Your task to perform on an android device: Go to CNN.com Image 0: 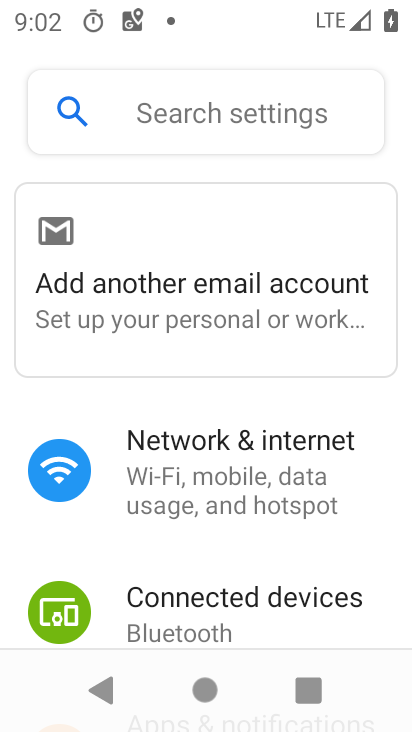
Step 0: press home button
Your task to perform on an android device: Go to CNN.com Image 1: 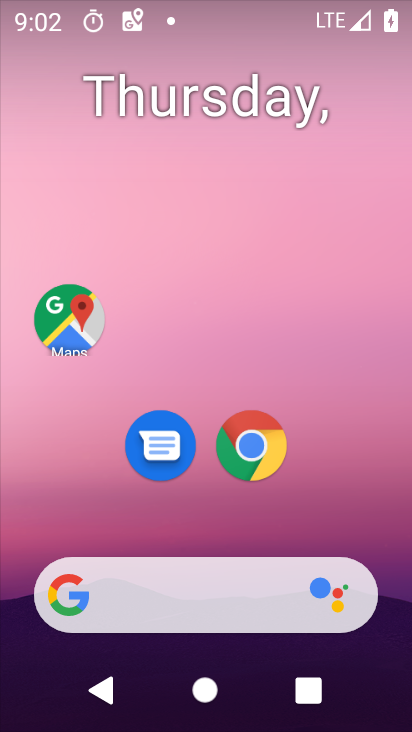
Step 1: drag from (188, 498) to (198, 21)
Your task to perform on an android device: Go to CNN.com Image 2: 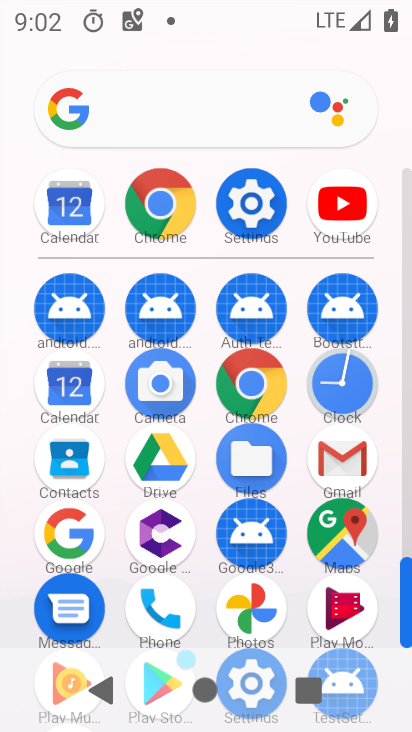
Step 2: click (183, 115)
Your task to perform on an android device: Go to CNN.com Image 3: 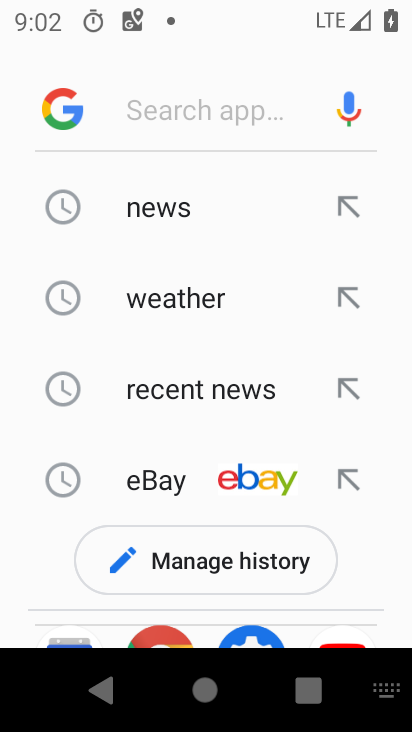
Step 3: type "cnn.com"
Your task to perform on an android device: Go to CNN.com Image 4: 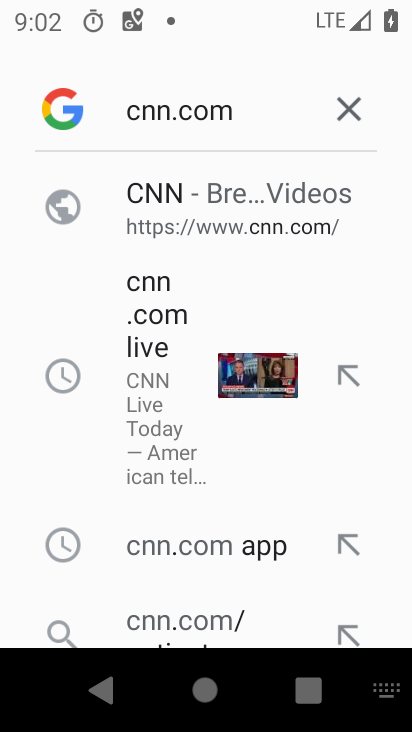
Step 4: click (187, 188)
Your task to perform on an android device: Go to CNN.com Image 5: 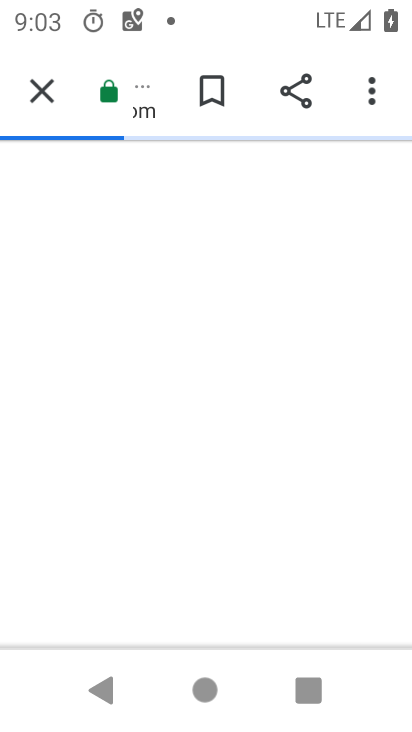
Step 5: task complete